Your task to perform on an android device: change the clock display to show seconds Image 0: 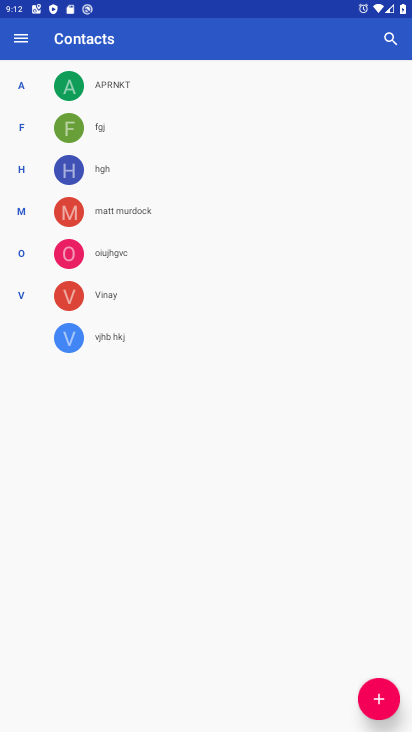
Step 0: press home button
Your task to perform on an android device: change the clock display to show seconds Image 1: 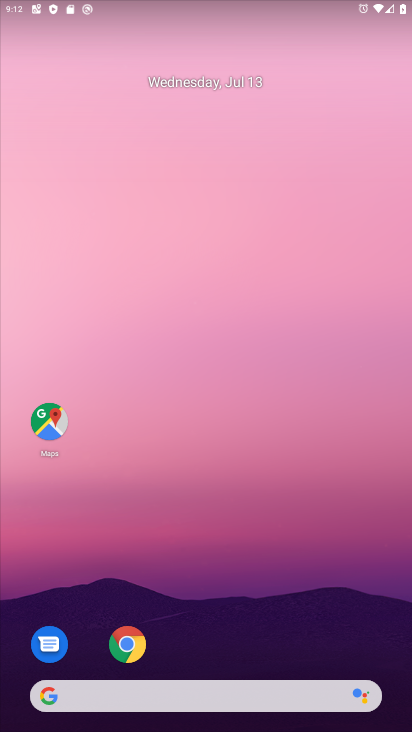
Step 1: drag from (206, 704) to (215, 125)
Your task to perform on an android device: change the clock display to show seconds Image 2: 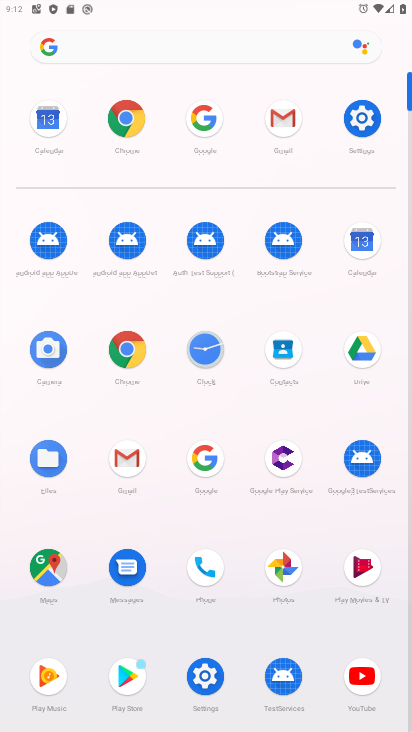
Step 2: click (206, 355)
Your task to perform on an android device: change the clock display to show seconds Image 3: 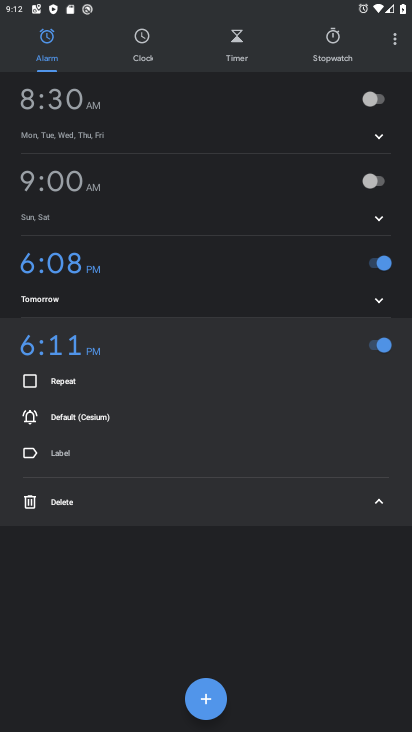
Step 3: click (394, 41)
Your task to perform on an android device: change the clock display to show seconds Image 4: 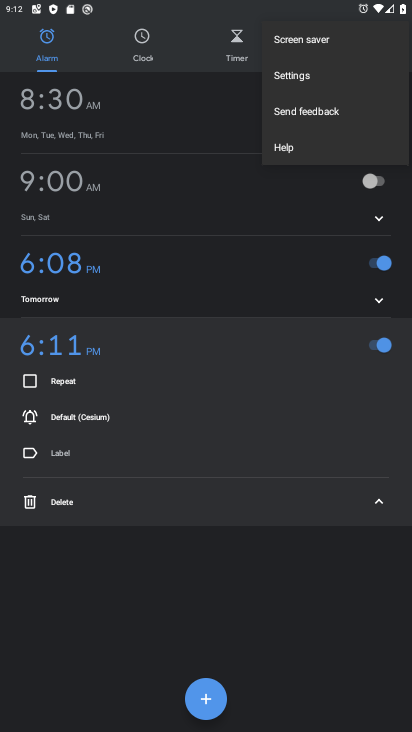
Step 4: click (292, 75)
Your task to perform on an android device: change the clock display to show seconds Image 5: 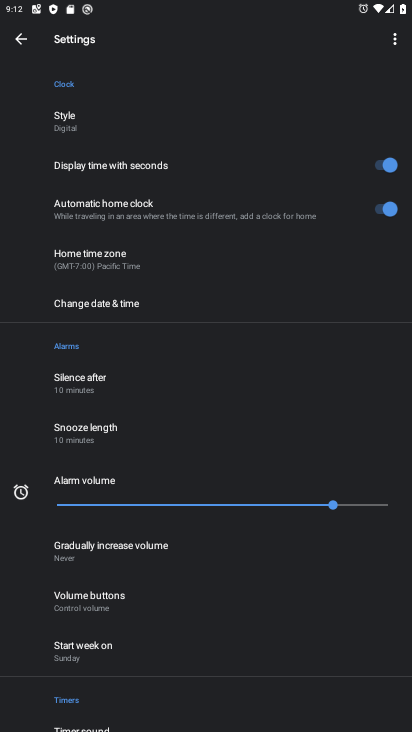
Step 5: task complete